Your task to perform on an android device: change the clock display to analog Image 0: 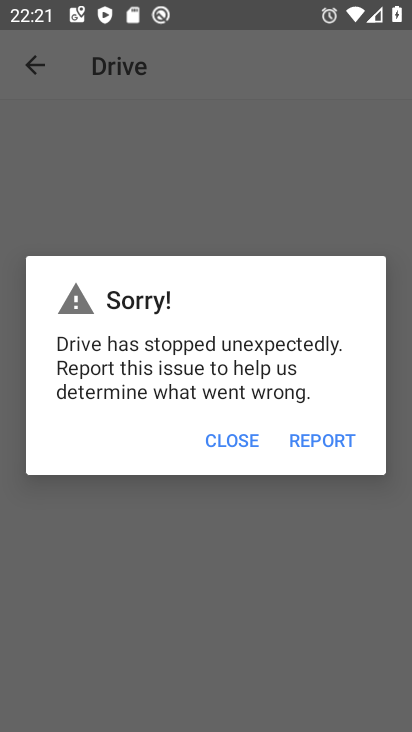
Step 0: press home button
Your task to perform on an android device: change the clock display to analog Image 1: 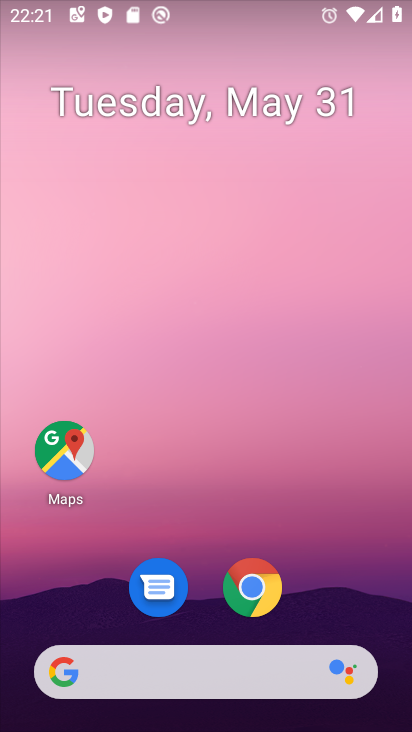
Step 1: drag from (384, 616) to (394, 232)
Your task to perform on an android device: change the clock display to analog Image 2: 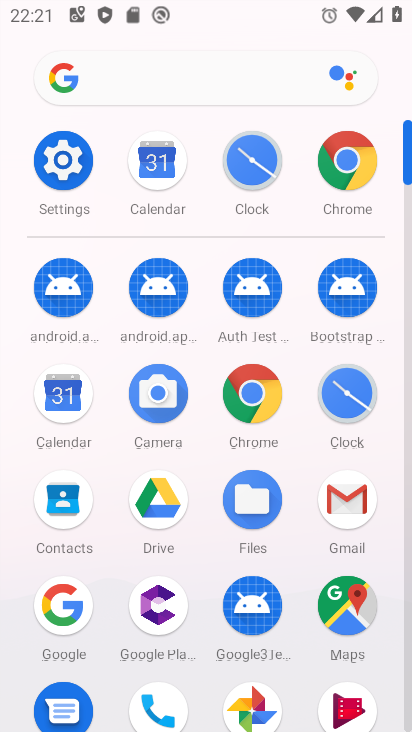
Step 2: click (345, 416)
Your task to perform on an android device: change the clock display to analog Image 3: 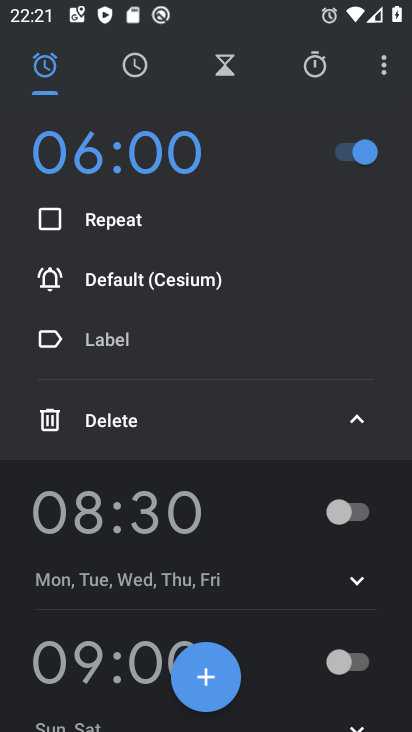
Step 3: click (387, 77)
Your task to perform on an android device: change the clock display to analog Image 4: 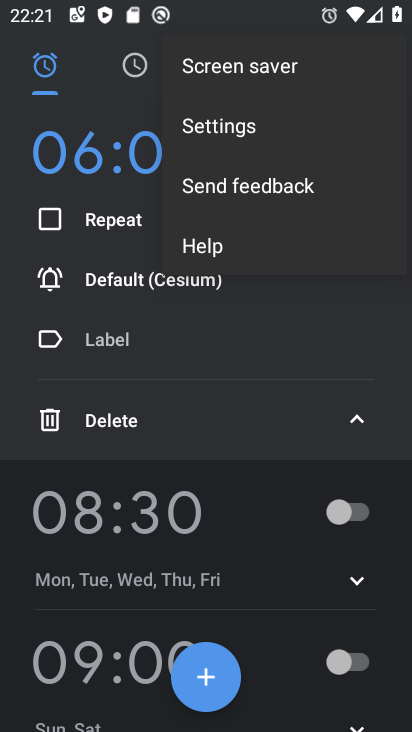
Step 4: click (249, 129)
Your task to perform on an android device: change the clock display to analog Image 5: 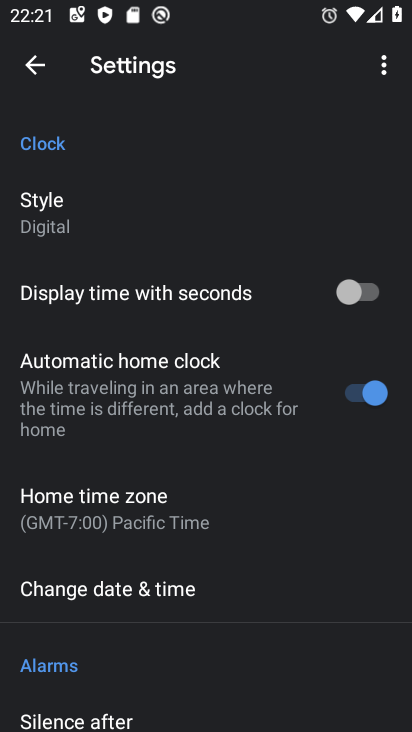
Step 5: click (92, 218)
Your task to perform on an android device: change the clock display to analog Image 6: 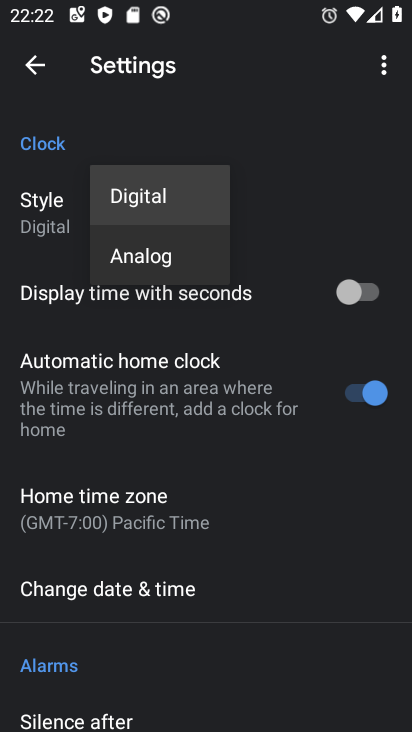
Step 6: click (153, 264)
Your task to perform on an android device: change the clock display to analog Image 7: 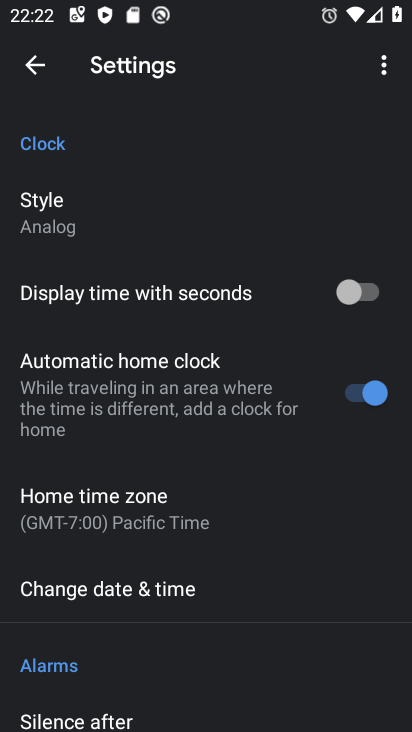
Step 7: task complete